Your task to perform on an android device: Open Android settings Image 0: 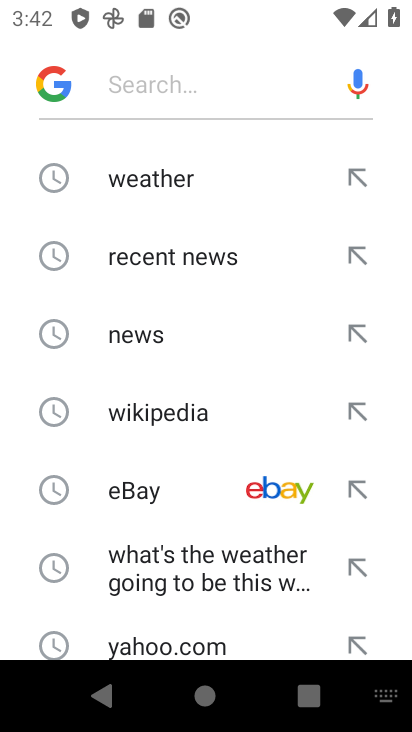
Step 0: press back button
Your task to perform on an android device: Open Android settings Image 1: 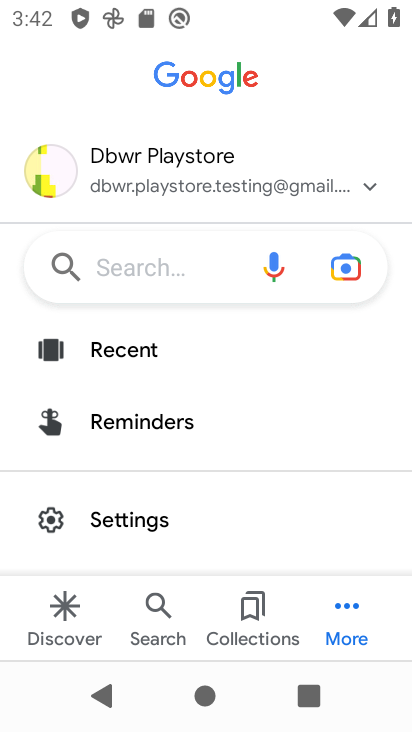
Step 1: press home button
Your task to perform on an android device: Open Android settings Image 2: 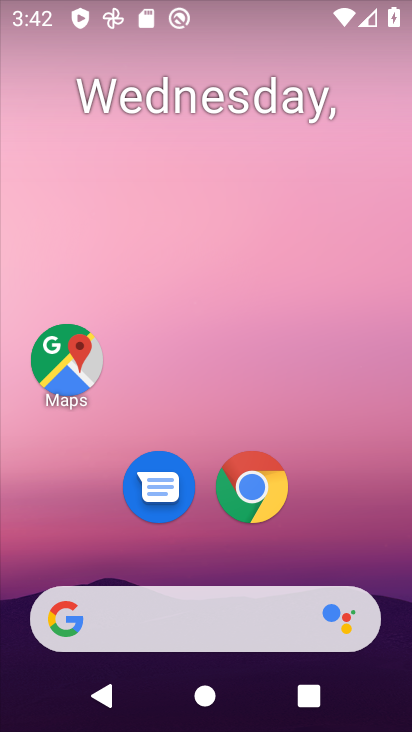
Step 2: drag from (358, 541) to (379, 141)
Your task to perform on an android device: Open Android settings Image 3: 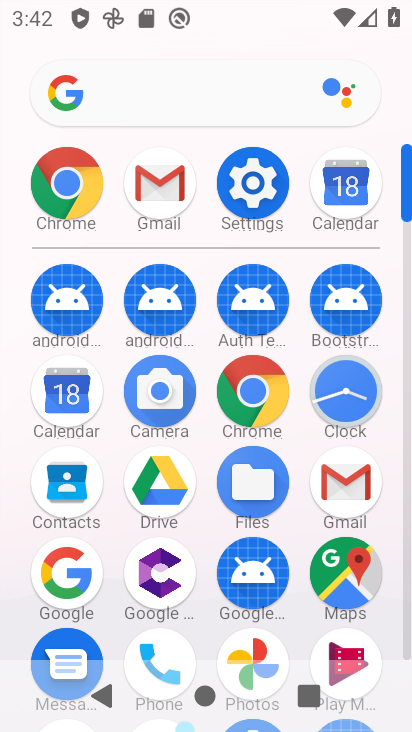
Step 3: click (251, 203)
Your task to perform on an android device: Open Android settings Image 4: 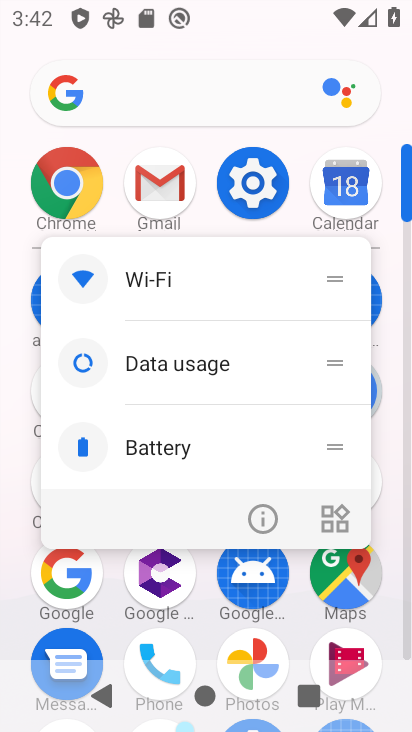
Step 4: click (251, 203)
Your task to perform on an android device: Open Android settings Image 5: 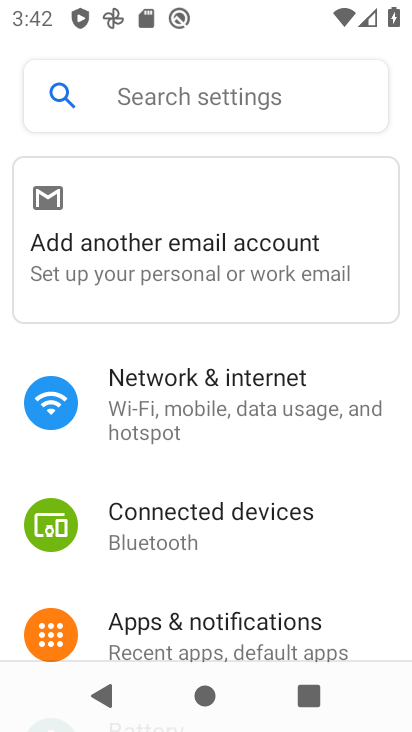
Step 5: drag from (381, 556) to (383, 481)
Your task to perform on an android device: Open Android settings Image 6: 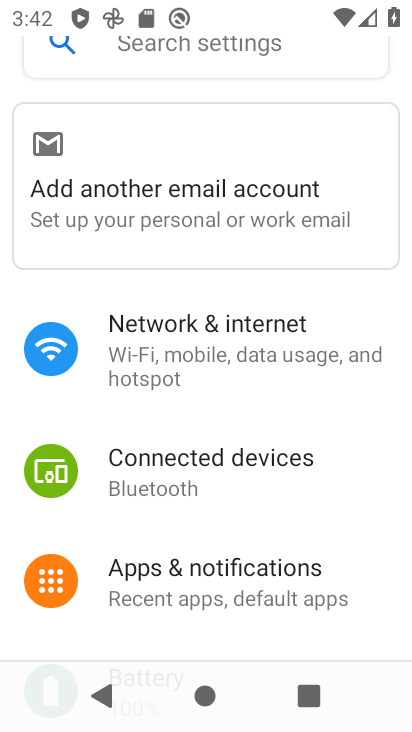
Step 6: drag from (380, 572) to (384, 488)
Your task to perform on an android device: Open Android settings Image 7: 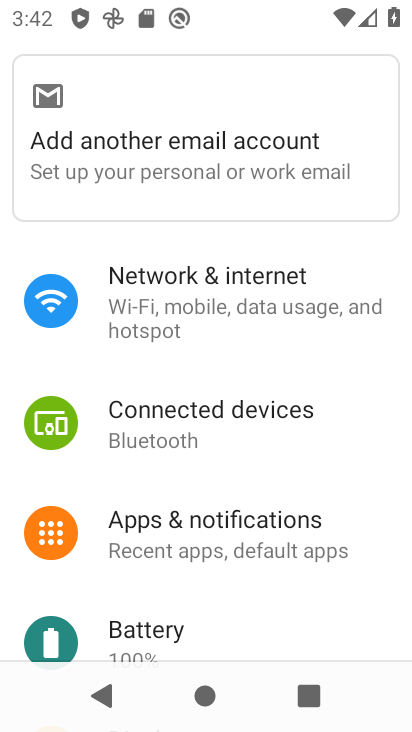
Step 7: drag from (365, 608) to (361, 515)
Your task to perform on an android device: Open Android settings Image 8: 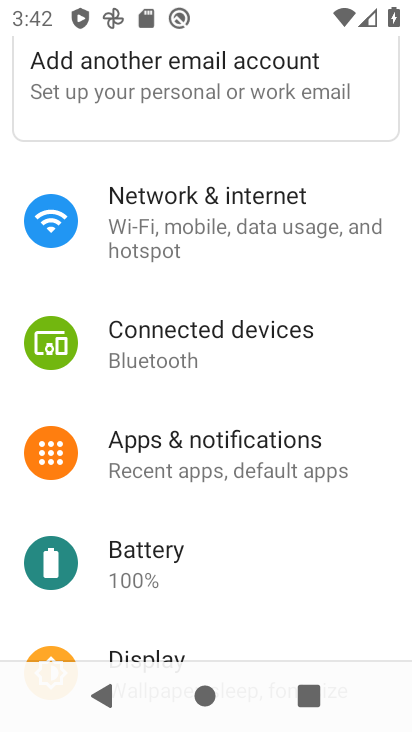
Step 8: drag from (358, 584) to (358, 486)
Your task to perform on an android device: Open Android settings Image 9: 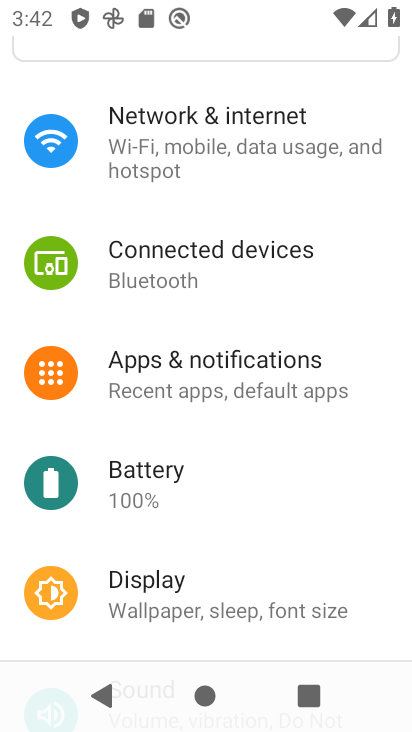
Step 9: drag from (361, 571) to (381, 412)
Your task to perform on an android device: Open Android settings Image 10: 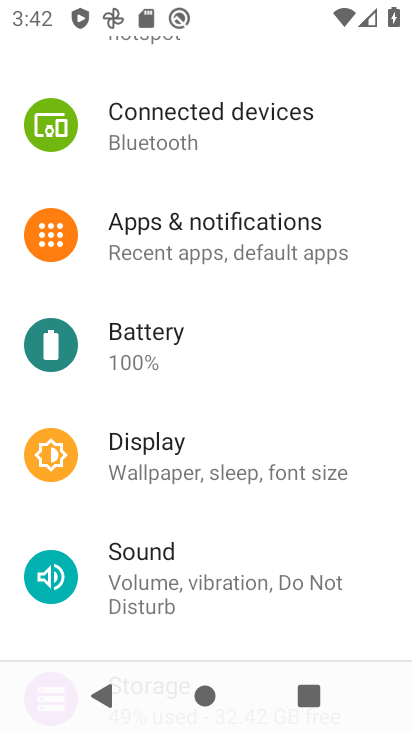
Step 10: drag from (358, 591) to (362, 479)
Your task to perform on an android device: Open Android settings Image 11: 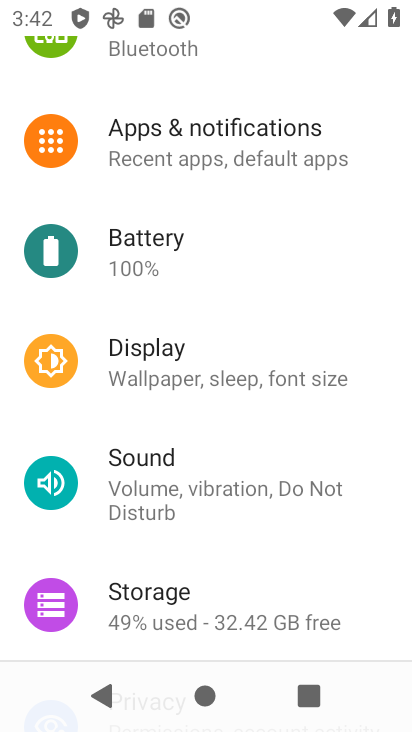
Step 11: drag from (339, 591) to (349, 471)
Your task to perform on an android device: Open Android settings Image 12: 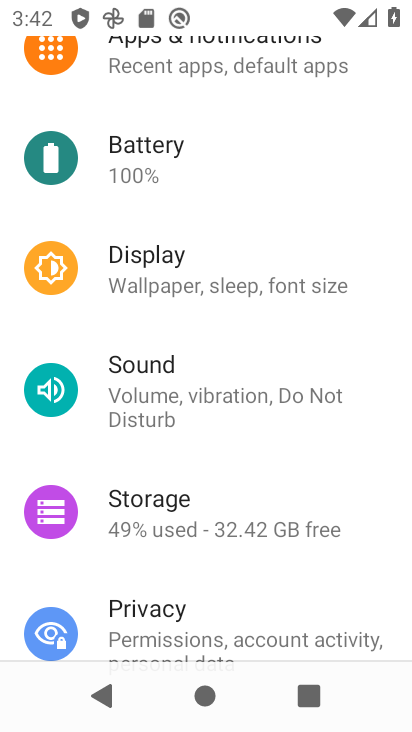
Step 12: drag from (344, 610) to (364, 490)
Your task to perform on an android device: Open Android settings Image 13: 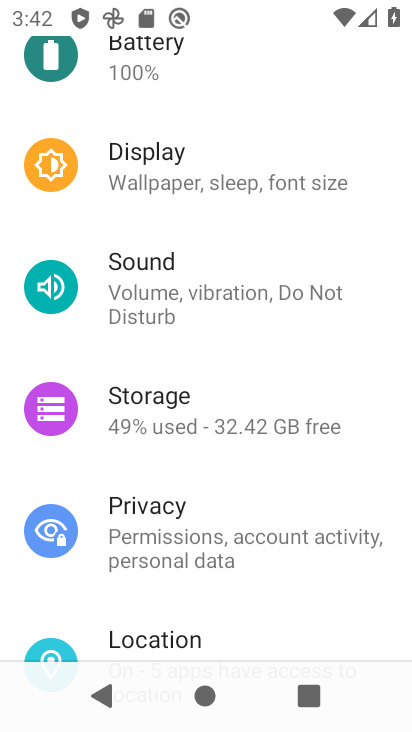
Step 13: drag from (369, 599) to (381, 480)
Your task to perform on an android device: Open Android settings Image 14: 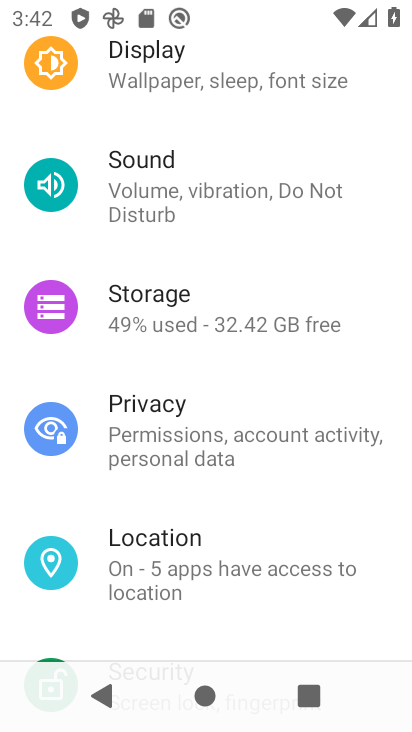
Step 14: drag from (344, 609) to (361, 459)
Your task to perform on an android device: Open Android settings Image 15: 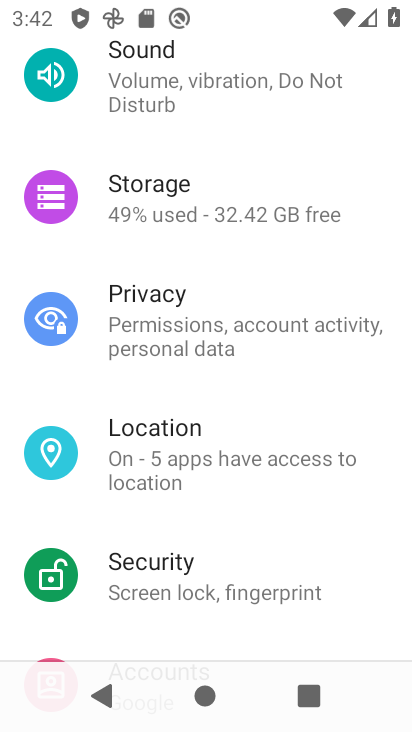
Step 15: drag from (335, 634) to (340, 500)
Your task to perform on an android device: Open Android settings Image 16: 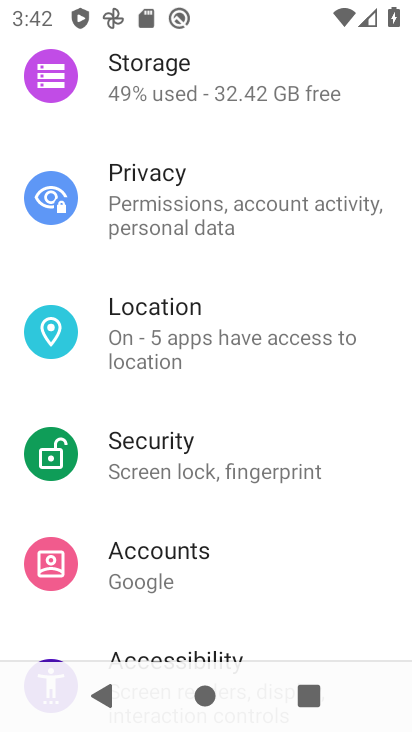
Step 16: drag from (319, 614) to (318, 494)
Your task to perform on an android device: Open Android settings Image 17: 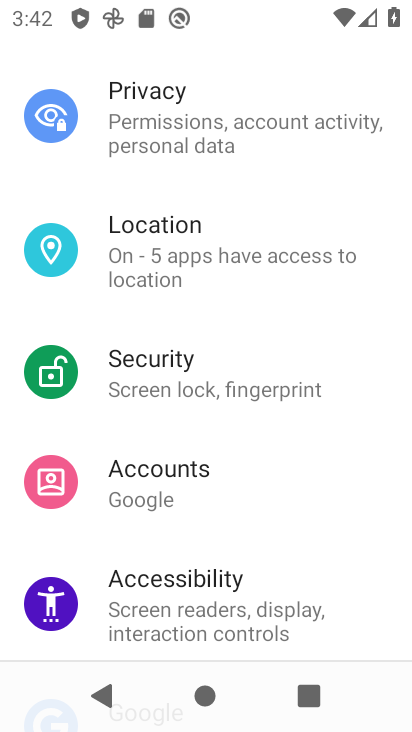
Step 17: drag from (329, 524) to (342, 465)
Your task to perform on an android device: Open Android settings Image 18: 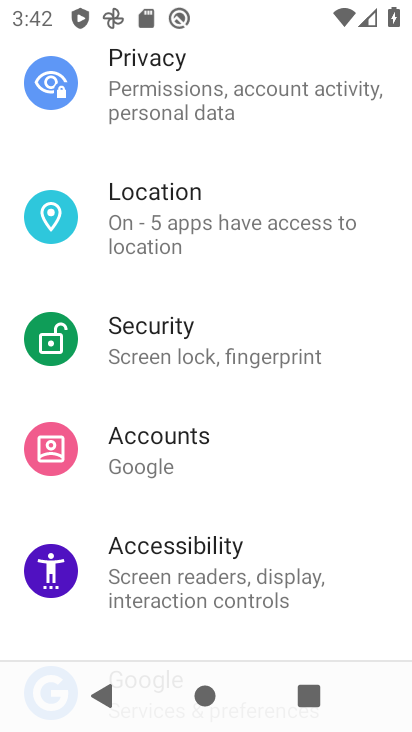
Step 18: drag from (347, 566) to (360, 462)
Your task to perform on an android device: Open Android settings Image 19: 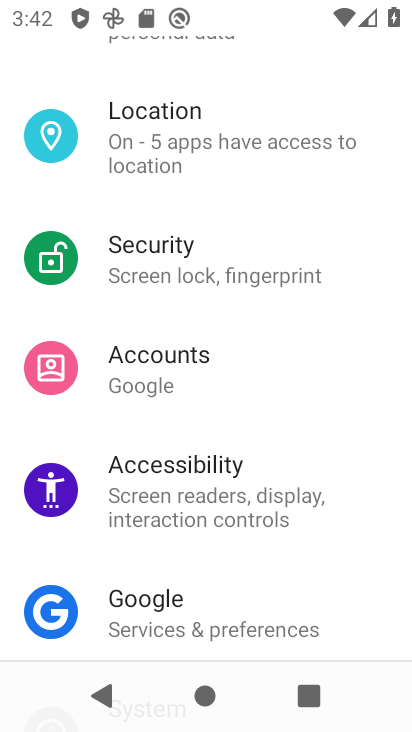
Step 19: drag from (343, 561) to (354, 477)
Your task to perform on an android device: Open Android settings Image 20: 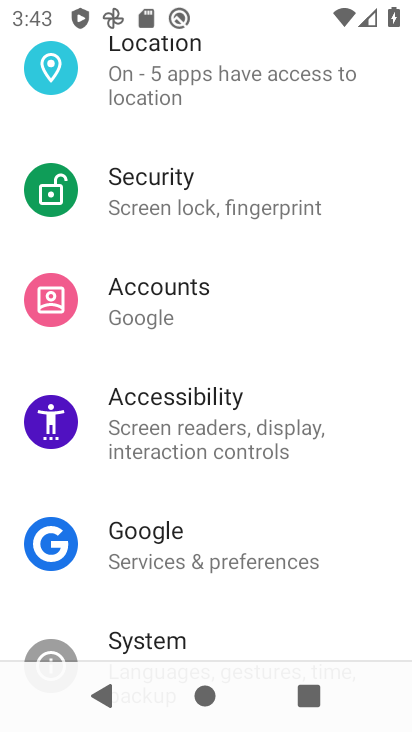
Step 20: drag from (329, 603) to (351, 499)
Your task to perform on an android device: Open Android settings Image 21: 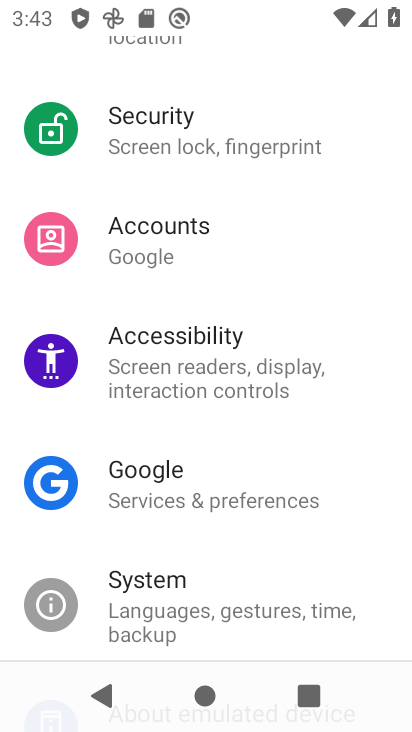
Step 21: drag from (333, 636) to (343, 489)
Your task to perform on an android device: Open Android settings Image 22: 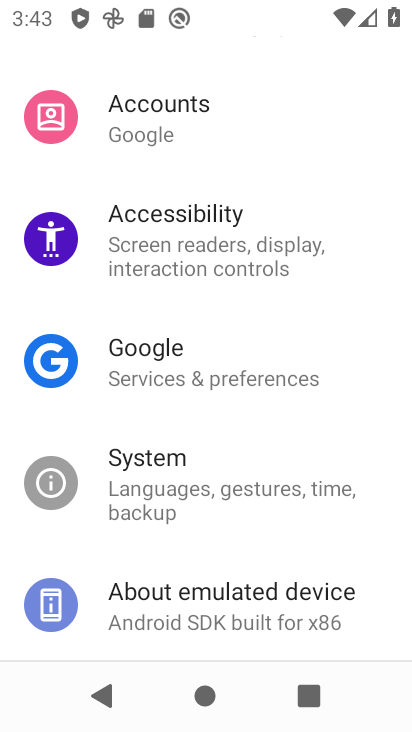
Step 22: click (343, 489)
Your task to perform on an android device: Open Android settings Image 23: 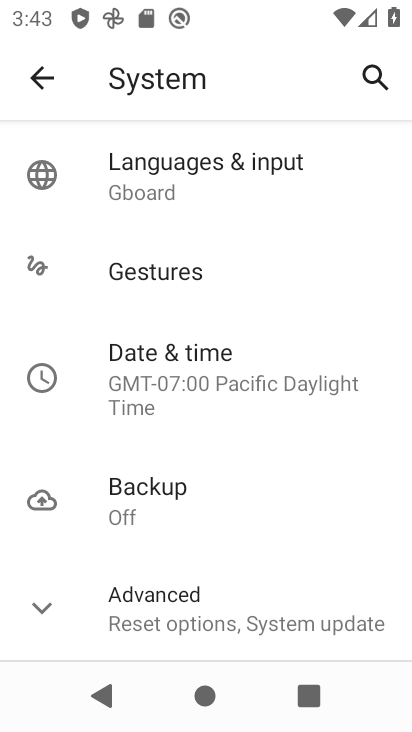
Step 23: click (312, 618)
Your task to perform on an android device: Open Android settings Image 24: 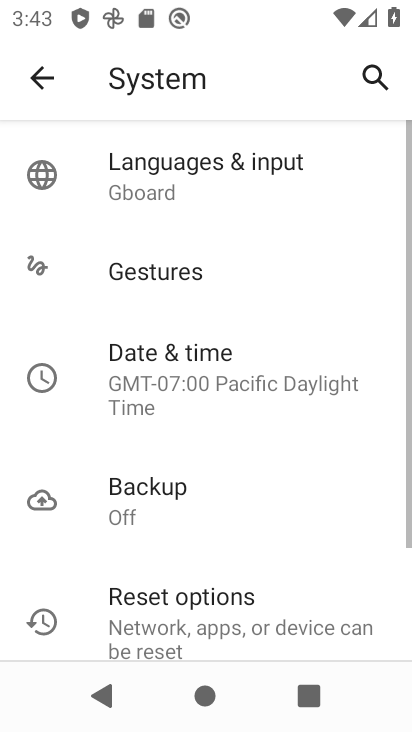
Step 24: task complete